Your task to perform on an android device: Go to privacy settings Image 0: 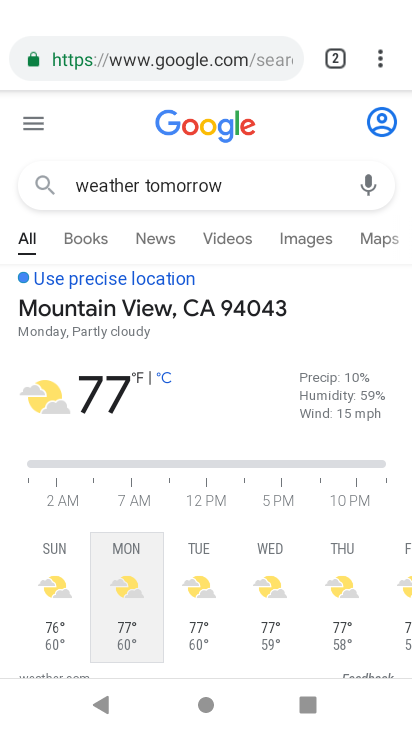
Step 0: press back button
Your task to perform on an android device: Go to privacy settings Image 1: 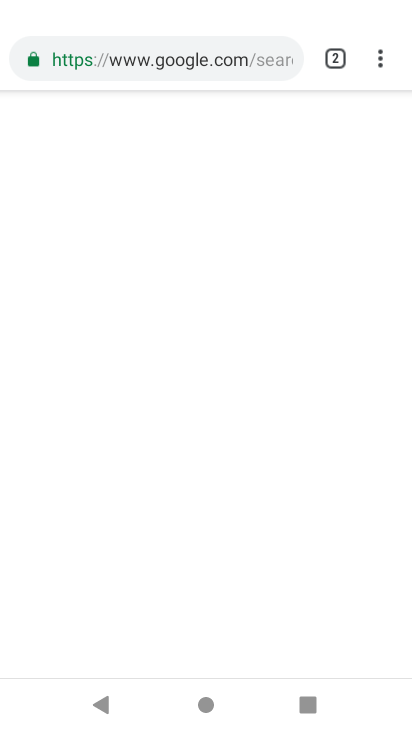
Step 1: press back button
Your task to perform on an android device: Go to privacy settings Image 2: 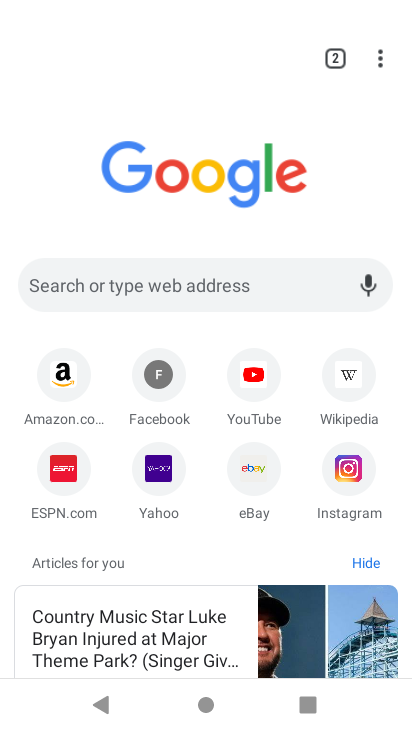
Step 2: press back button
Your task to perform on an android device: Go to privacy settings Image 3: 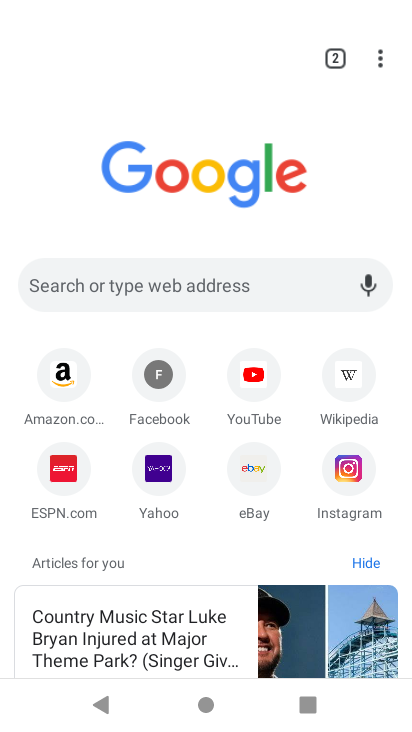
Step 3: click (263, 86)
Your task to perform on an android device: Go to privacy settings Image 4: 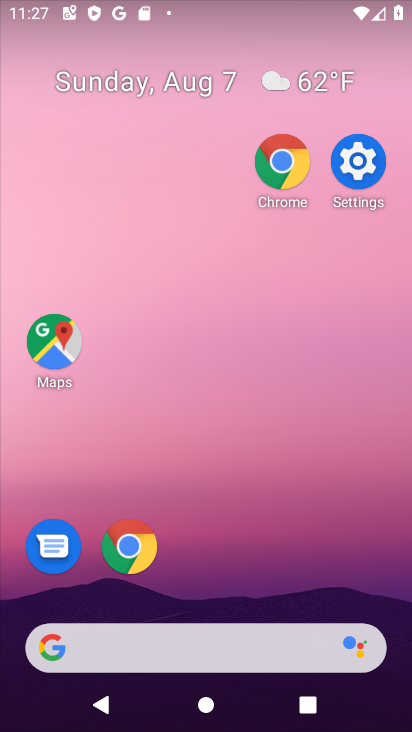
Step 4: click (284, 171)
Your task to perform on an android device: Go to privacy settings Image 5: 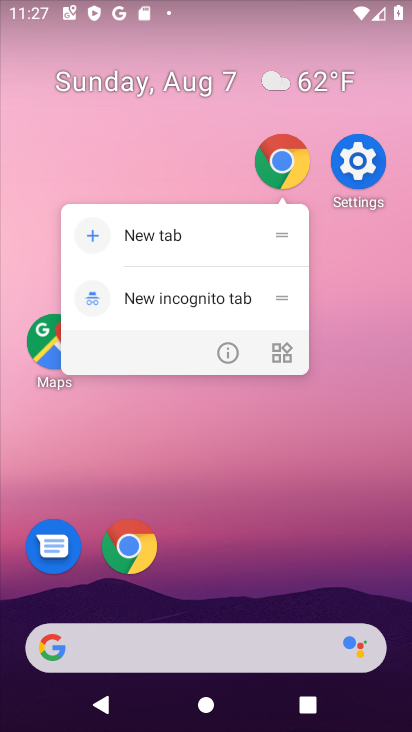
Step 5: click (285, 173)
Your task to perform on an android device: Go to privacy settings Image 6: 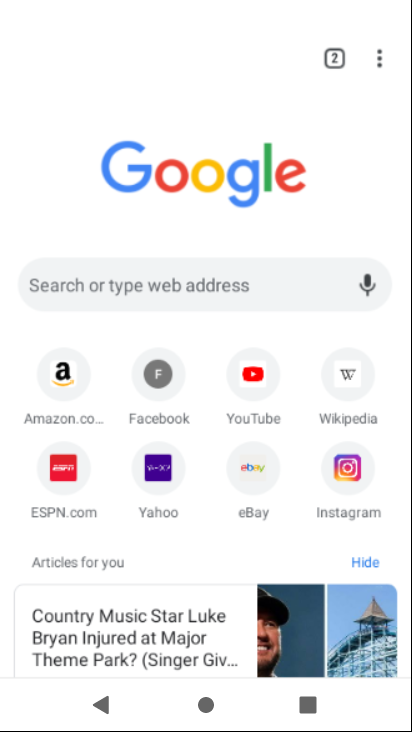
Step 6: click (358, 174)
Your task to perform on an android device: Go to privacy settings Image 7: 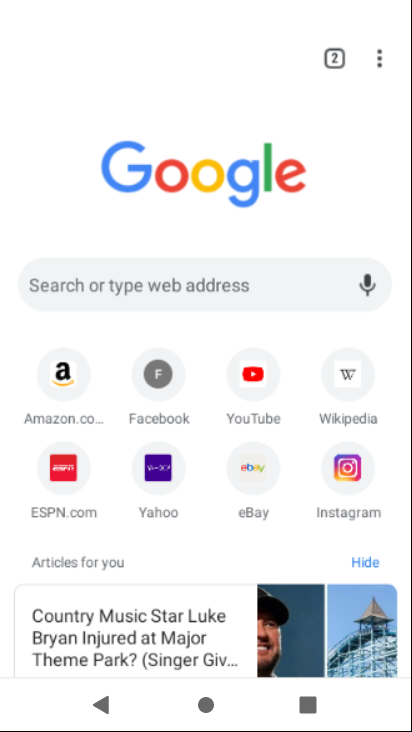
Step 7: click (359, 174)
Your task to perform on an android device: Go to privacy settings Image 8: 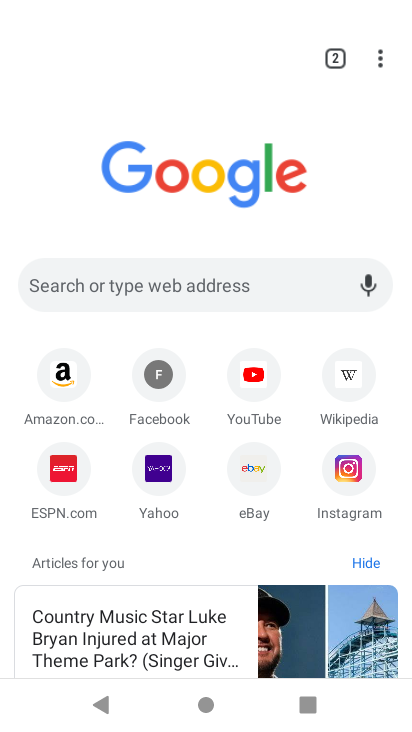
Step 8: press back button
Your task to perform on an android device: Go to privacy settings Image 9: 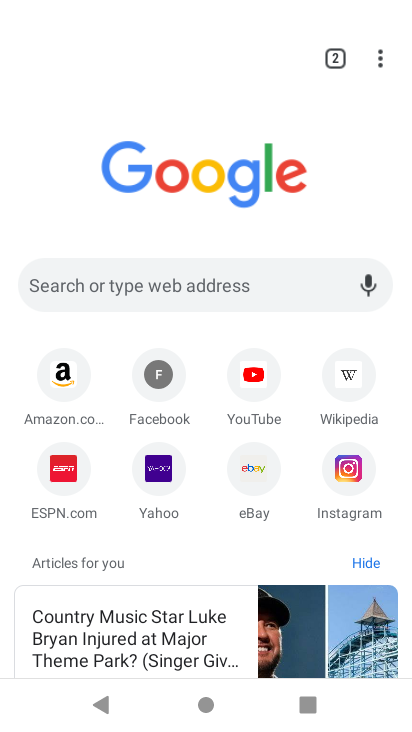
Step 9: press back button
Your task to perform on an android device: Go to privacy settings Image 10: 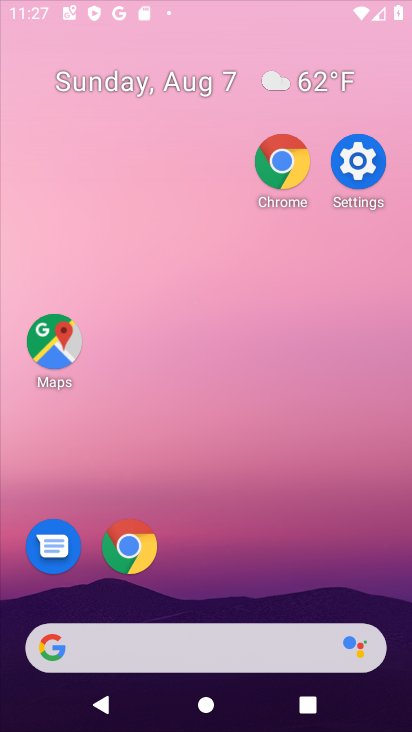
Step 10: press back button
Your task to perform on an android device: Go to privacy settings Image 11: 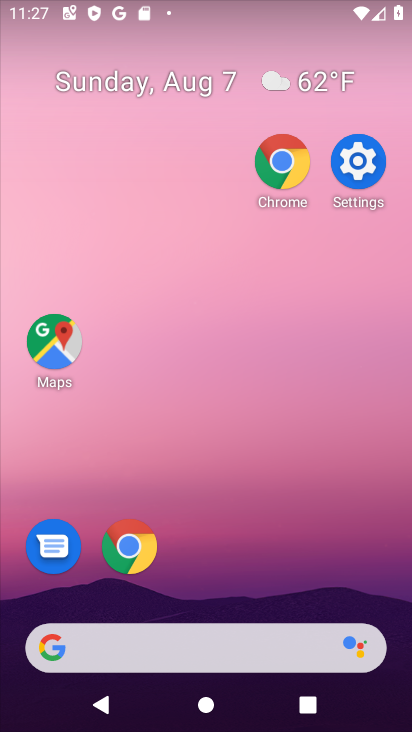
Step 11: click (190, 124)
Your task to perform on an android device: Go to privacy settings Image 12: 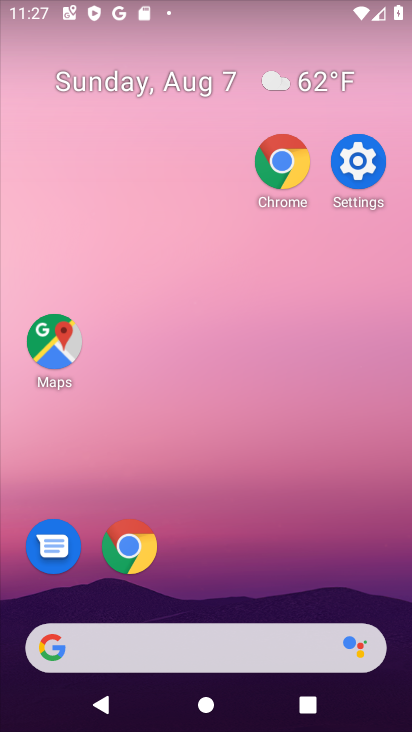
Step 12: drag from (278, 491) to (268, 150)
Your task to perform on an android device: Go to privacy settings Image 13: 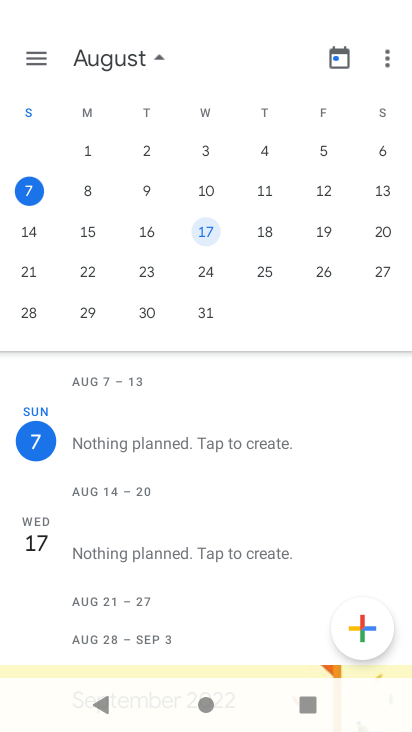
Step 13: press back button
Your task to perform on an android device: Go to privacy settings Image 14: 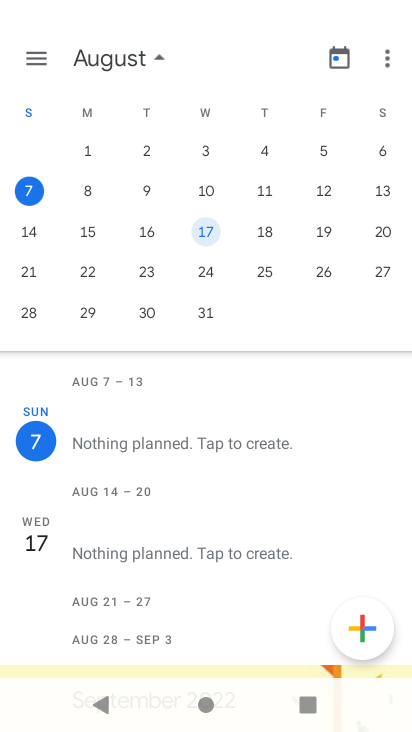
Step 14: press back button
Your task to perform on an android device: Go to privacy settings Image 15: 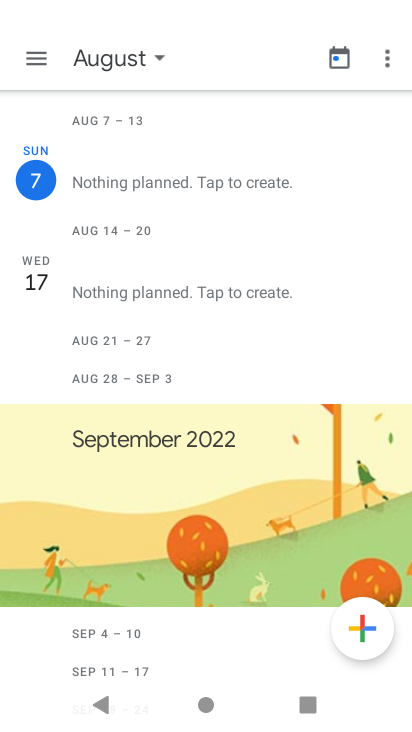
Step 15: press back button
Your task to perform on an android device: Go to privacy settings Image 16: 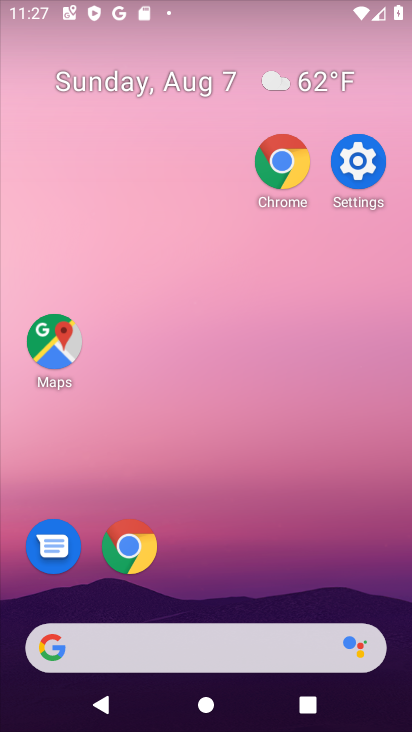
Step 16: drag from (220, 439) to (323, 221)
Your task to perform on an android device: Go to privacy settings Image 17: 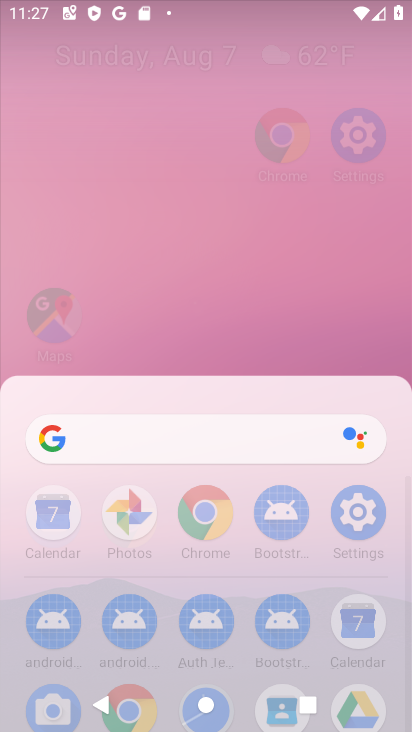
Step 17: click (361, 178)
Your task to perform on an android device: Go to privacy settings Image 18: 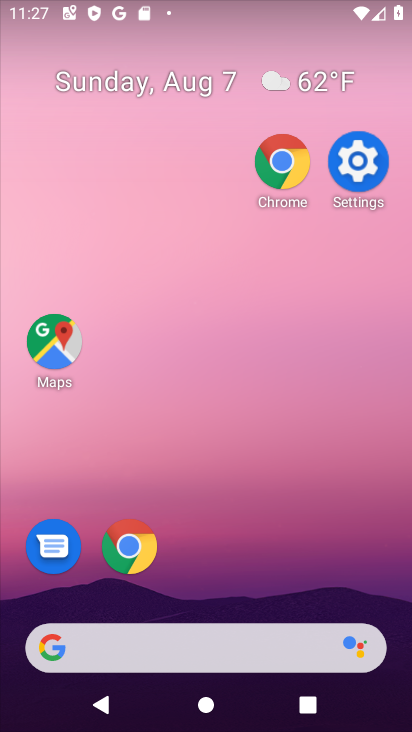
Step 18: click (362, 159)
Your task to perform on an android device: Go to privacy settings Image 19: 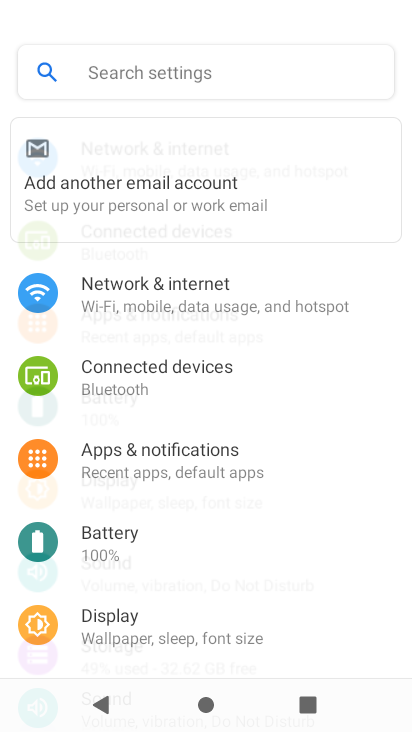
Step 19: click (362, 158)
Your task to perform on an android device: Go to privacy settings Image 20: 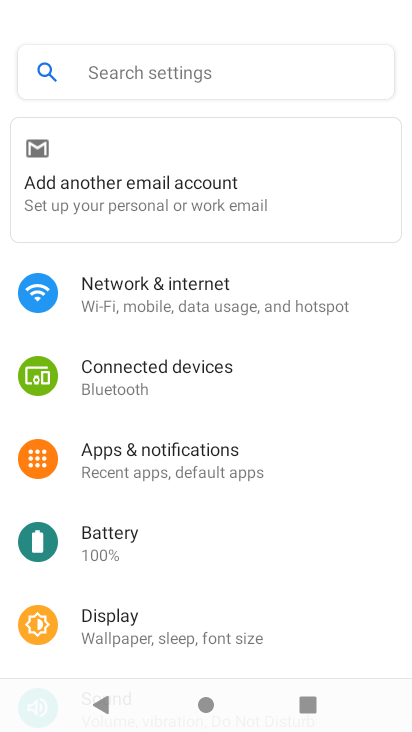
Step 20: drag from (150, 569) to (126, 373)
Your task to perform on an android device: Go to privacy settings Image 21: 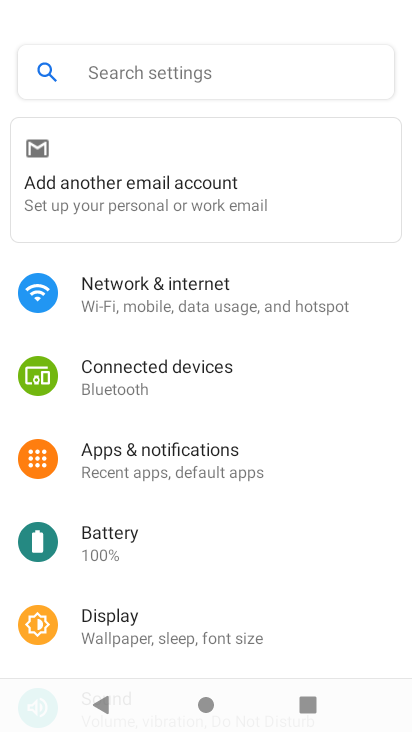
Step 21: drag from (171, 483) to (171, 371)
Your task to perform on an android device: Go to privacy settings Image 22: 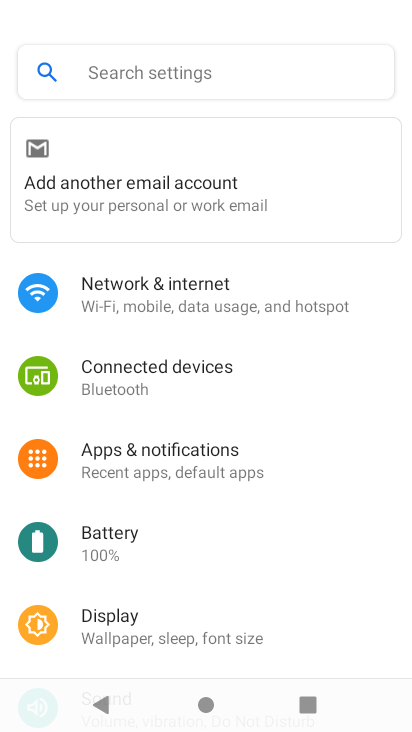
Step 22: drag from (172, 548) to (160, 311)
Your task to perform on an android device: Go to privacy settings Image 23: 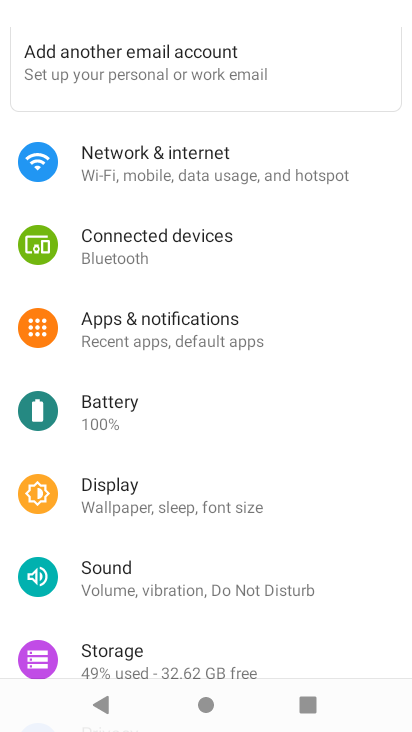
Step 23: drag from (158, 545) to (168, 366)
Your task to perform on an android device: Go to privacy settings Image 24: 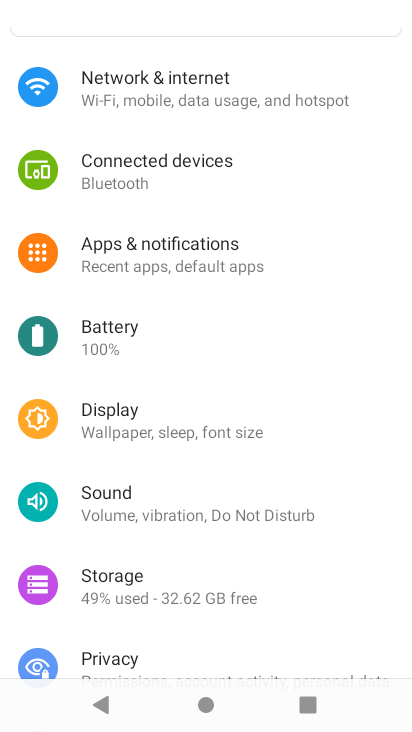
Step 24: click (108, 661)
Your task to perform on an android device: Go to privacy settings Image 25: 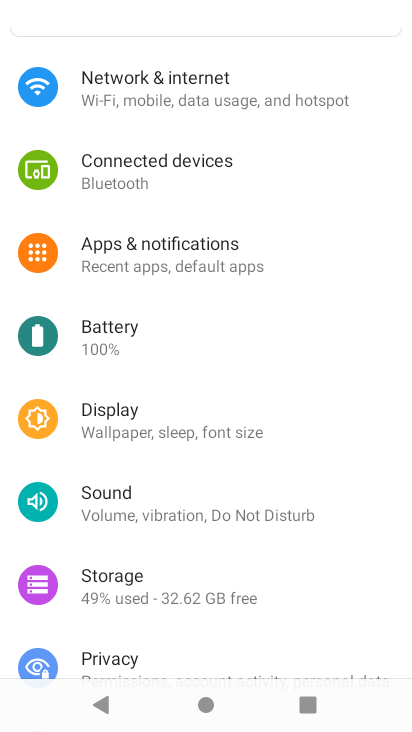
Step 25: click (108, 661)
Your task to perform on an android device: Go to privacy settings Image 26: 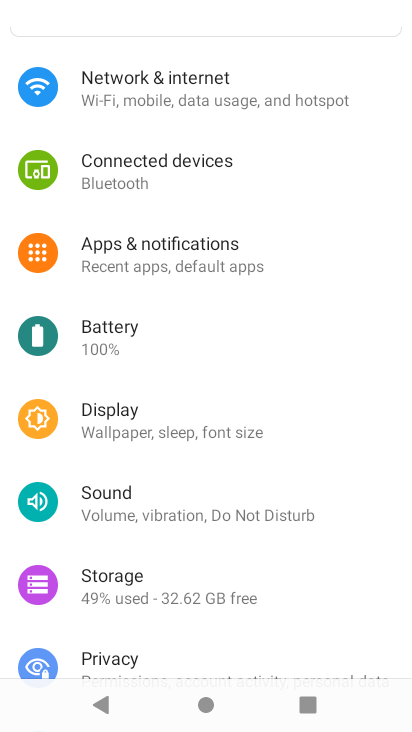
Step 26: click (108, 661)
Your task to perform on an android device: Go to privacy settings Image 27: 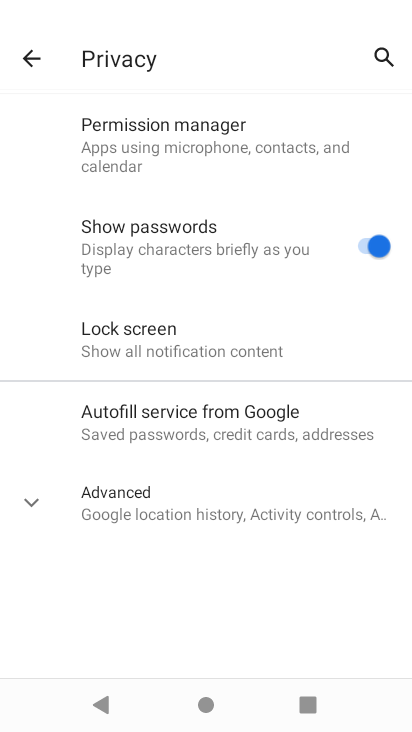
Step 27: task complete